Your task to perform on an android device: Open Google Image 0: 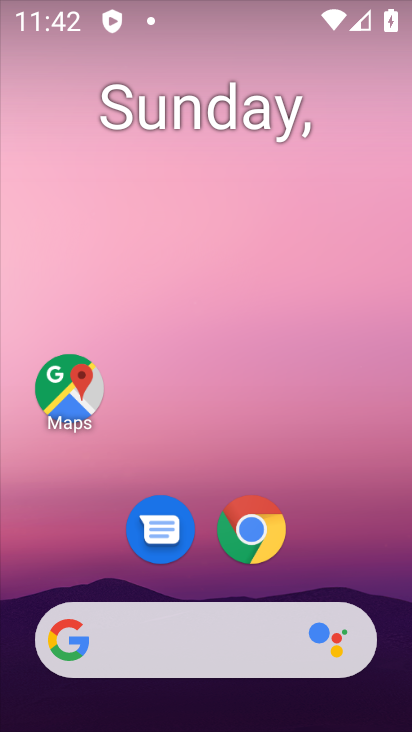
Step 0: click (243, 155)
Your task to perform on an android device: Open Google Image 1: 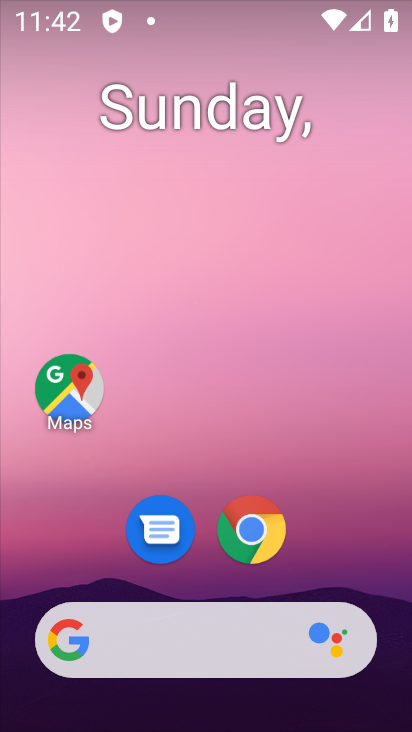
Step 1: drag from (195, 603) to (223, 198)
Your task to perform on an android device: Open Google Image 2: 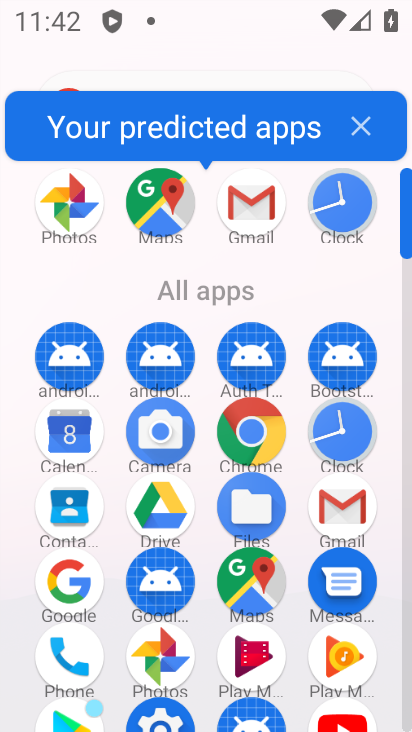
Step 2: click (68, 581)
Your task to perform on an android device: Open Google Image 3: 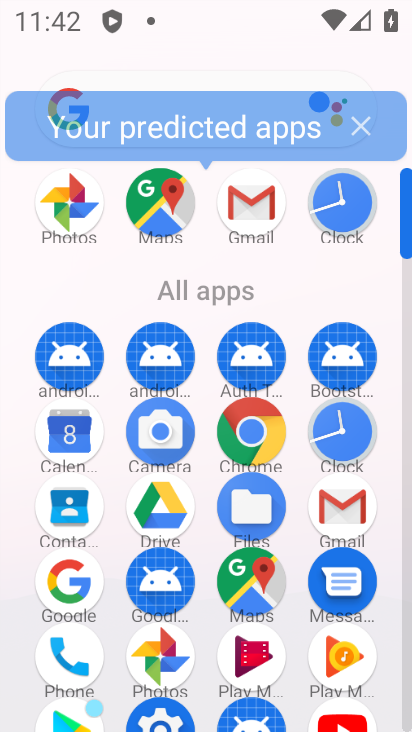
Step 3: click (68, 581)
Your task to perform on an android device: Open Google Image 4: 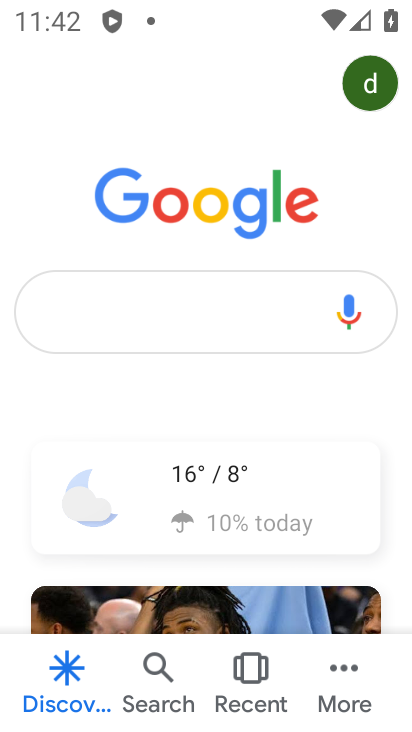
Step 4: task complete